Your task to perform on an android device: Open calendar and show me the first week of next month Image 0: 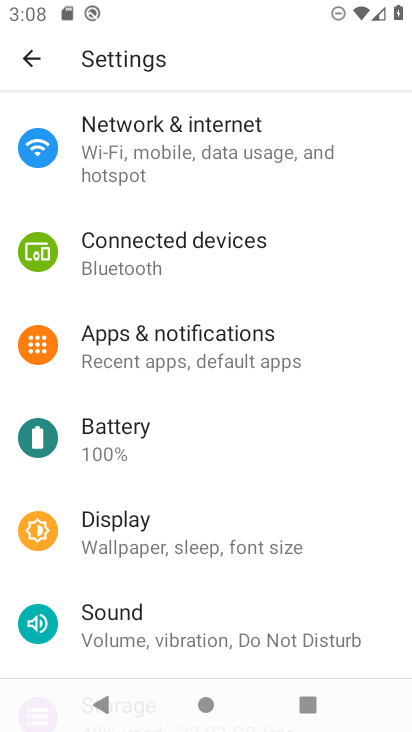
Step 0: press home button
Your task to perform on an android device: Open calendar and show me the first week of next month Image 1: 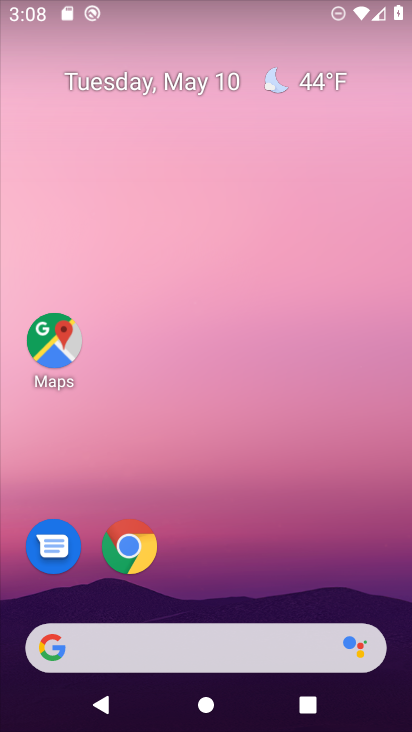
Step 1: drag from (217, 343) to (236, 242)
Your task to perform on an android device: Open calendar and show me the first week of next month Image 2: 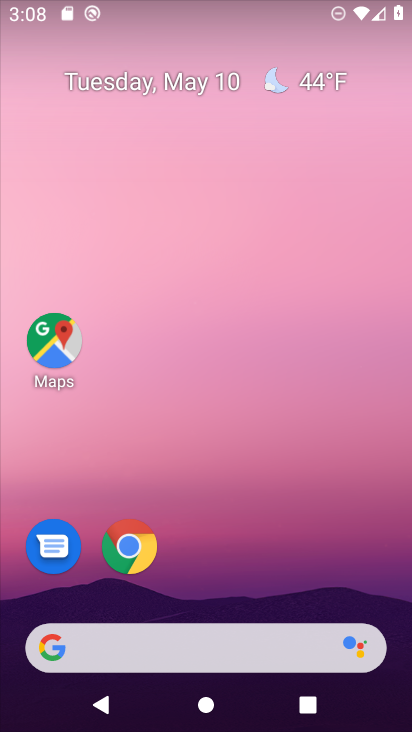
Step 2: drag from (206, 724) to (243, 215)
Your task to perform on an android device: Open calendar and show me the first week of next month Image 3: 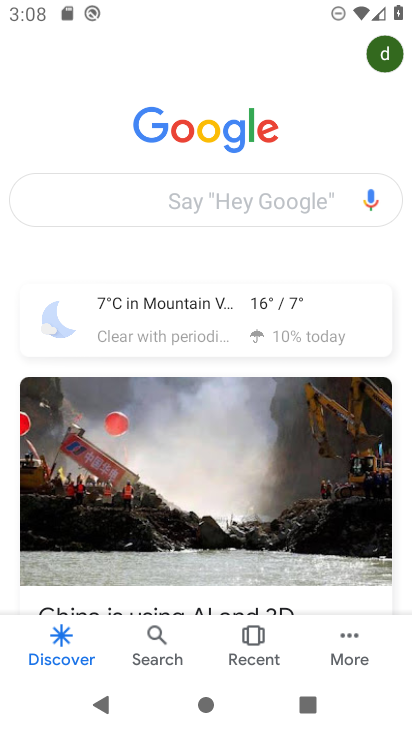
Step 3: click (305, 426)
Your task to perform on an android device: Open calendar and show me the first week of next month Image 4: 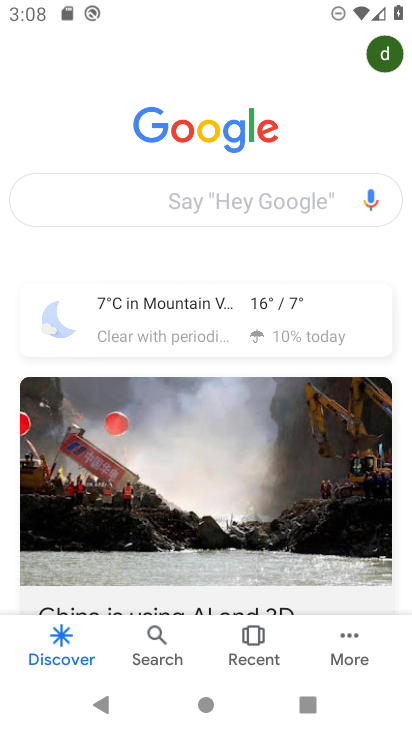
Step 4: press home button
Your task to perform on an android device: Open calendar and show me the first week of next month Image 5: 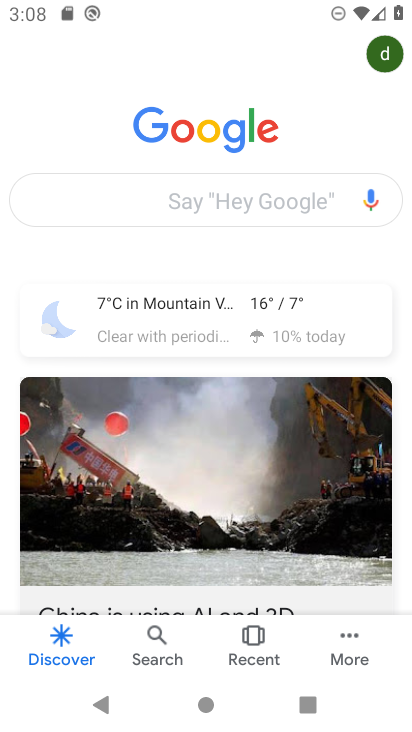
Step 5: click (378, 432)
Your task to perform on an android device: Open calendar and show me the first week of next month Image 6: 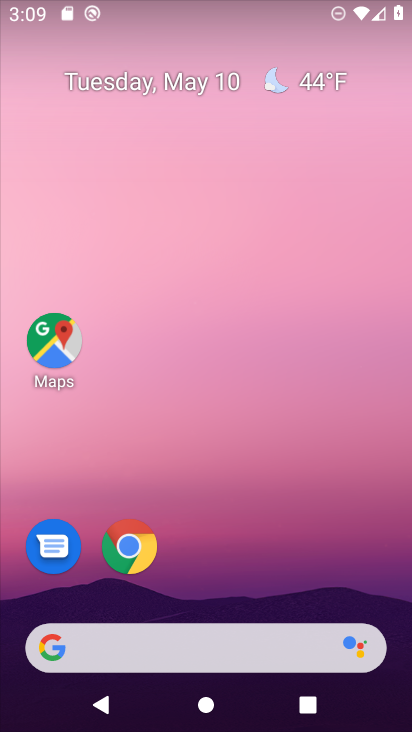
Step 6: drag from (233, 722) to (247, 273)
Your task to perform on an android device: Open calendar and show me the first week of next month Image 7: 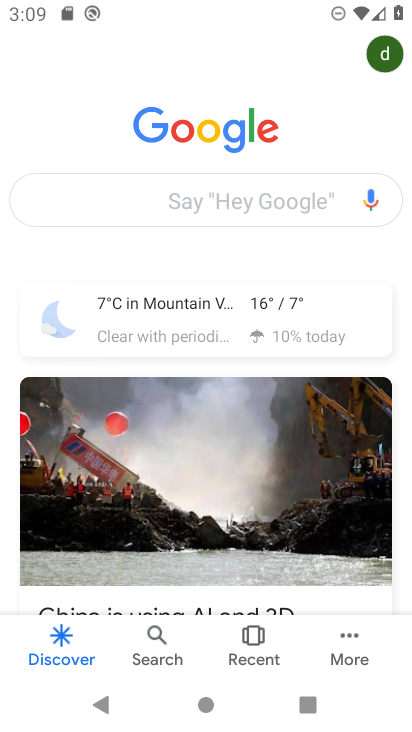
Step 7: press home button
Your task to perform on an android device: Open calendar and show me the first week of next month Image 8: 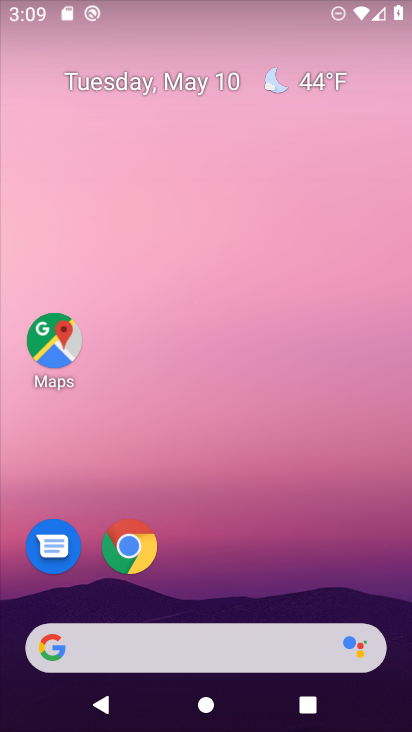
Step 8: drag from (243, 575) to (158, 16)
Your task to perform on an android device: Open calendar and show me the first week of next month Image 9: 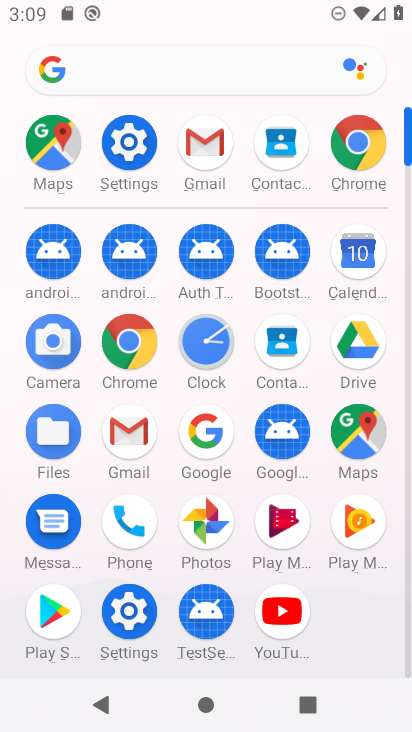
Step 9: click (371, 259)
Your task to perform on an android device: Open calendar and show me the first week of next month Image 10: 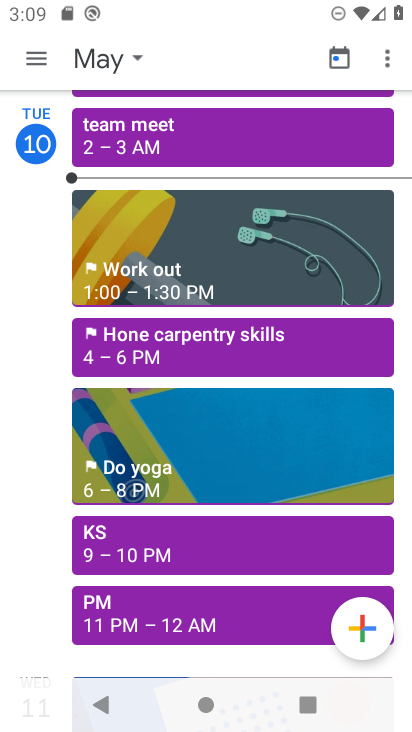
Step 10: click (139, 59)
Your task to perform on an android device: Open calendar and show me the first week of next month Image 11: 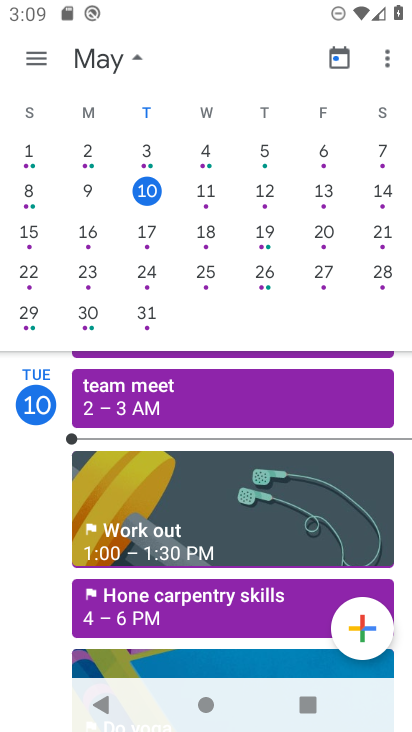
Step 11: drag from (406, 226) to (3, 213)
Your task to perform on an android device: Open calendar and show me the first week of next month Image 12: 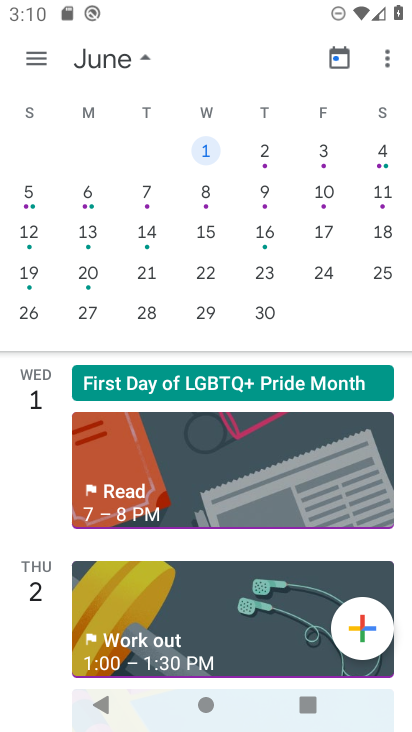
Step 12: click (329, 157)
Your task to perform on an android device: Open calendar and show me the first week of next month Image 13: 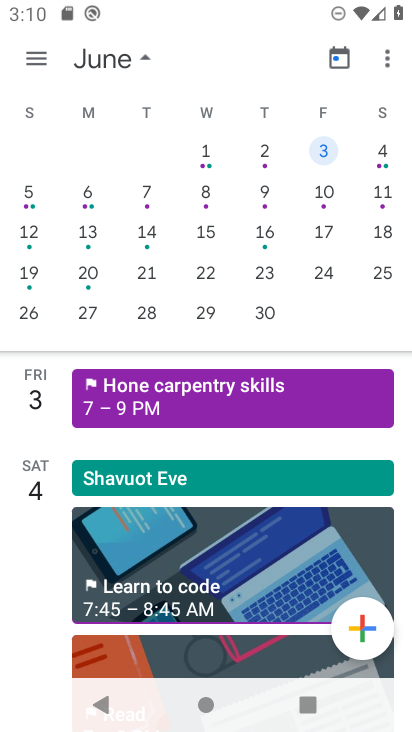
Step 13: click (41, 55)
Your task to perform on an android device: Open calendar and show me the first week of next month Image 14: 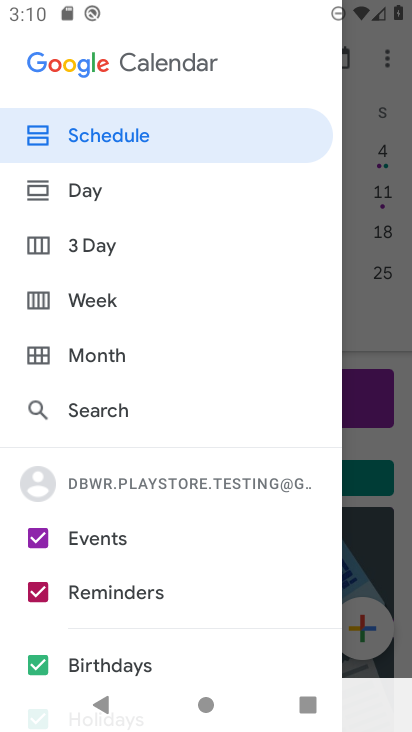
Step 14: click (123, 307)
Your task to perform on an android device: Open calendar and show me the first week of next month Image 15: 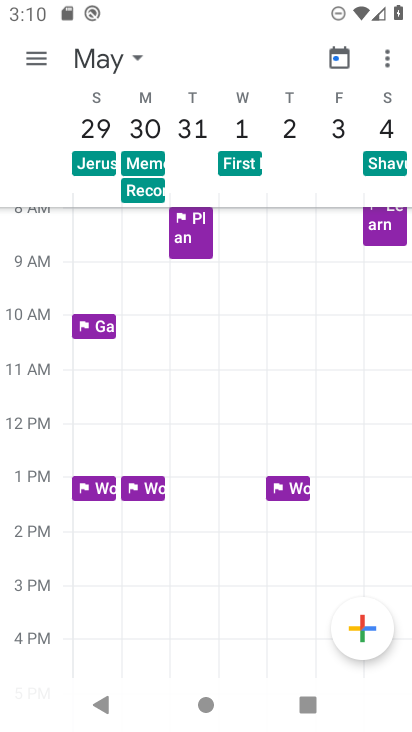
Step 15: task complete